Your task to perform on an android device: turn on sleep mode Image 0: 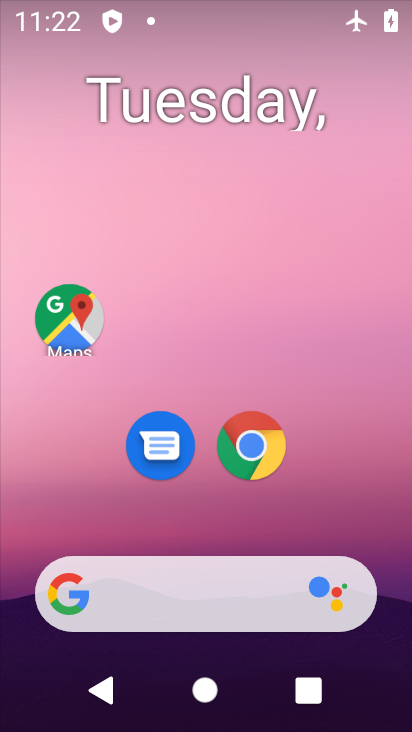
Step 0: drag from (374, 531) to (265, 30)
Your task to perform on an android device: turn on sleep mode Image 1: 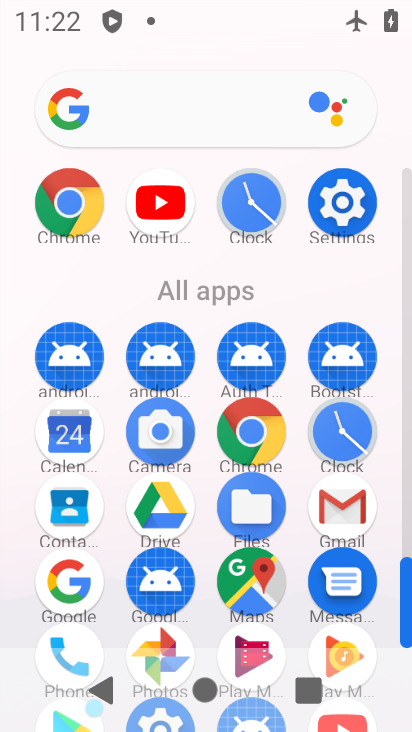
Step 1: drag from (3, 624) to (33, 250)
Your task to perform on an android device: turn on sleep mode Image 2: 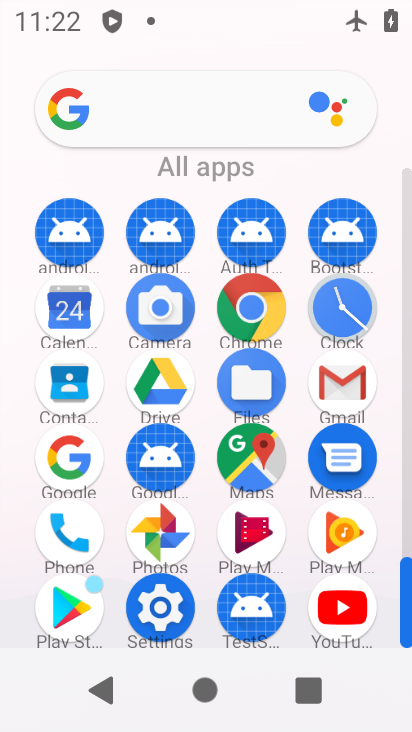
Step 2: click (158, 610)
Your task to perform on an android device: turn on sleep mode Image 3: 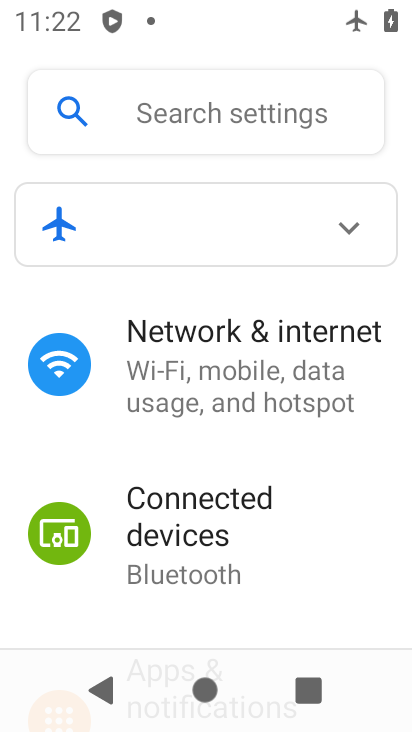
Step 3: drag from (298, 516) to (302, 131)
Your task to perform on an android device: turn on sleep mode Image 4: 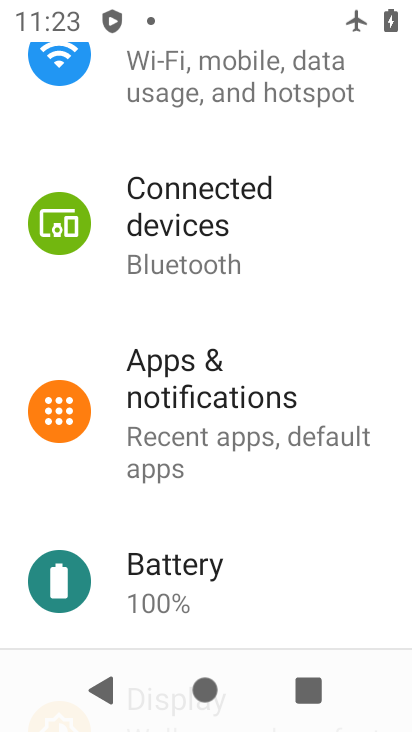
Step 4: drag from (278, 558) to (326, 182)
Your task to perform on an android device: turn on sleep mode Image 5: 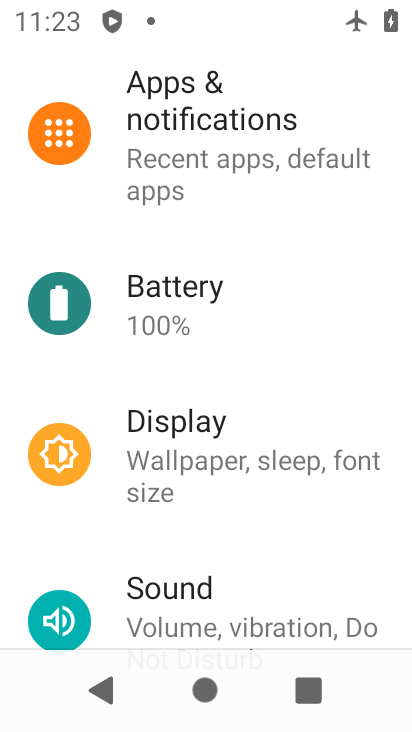
Step 5: click (183, 430)
Your task to perform on an android device: turn on sleep mode Image 6: 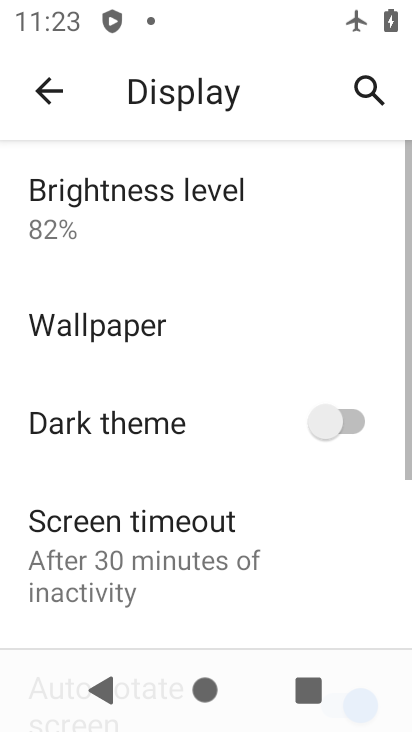
Step 6: drag from (203, 479) to (240, 163)
Your task to perform on an android device: turn on sleep mode Image 7: 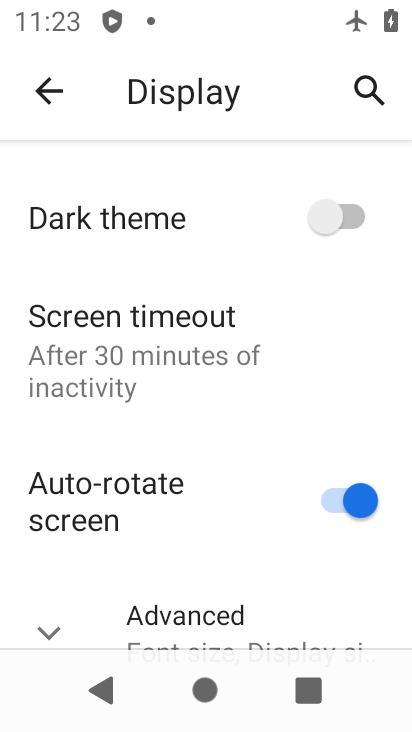
Step 7: drag from (179, 529) to (188, 168)
Your task to perform on an android device: turn on sleep mode Image 8: 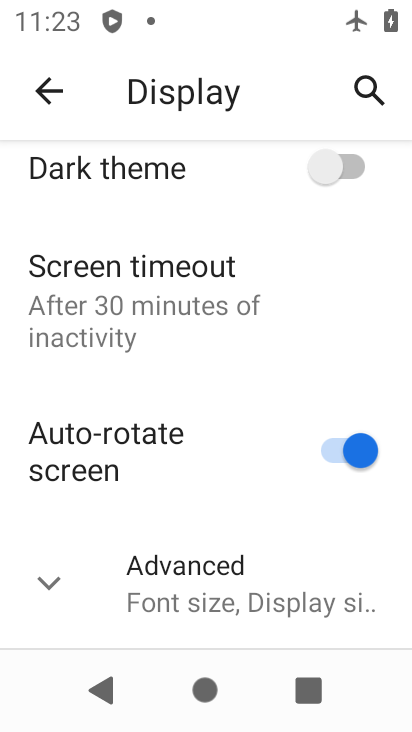
Step 8: click (41, 578)
Your task to perform on an android device: turn on sleep mode Image 9: 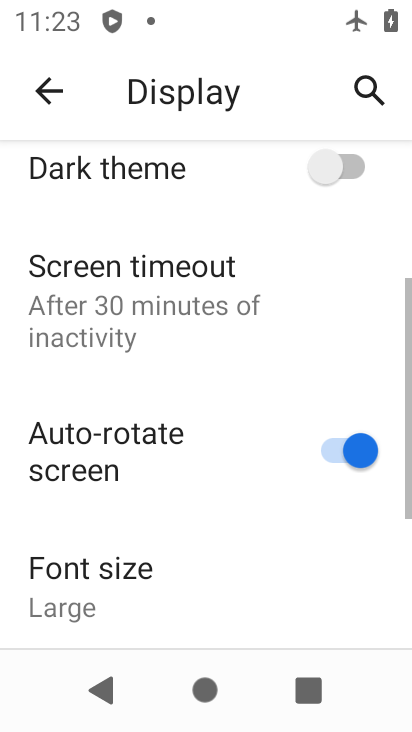
Step 9: task complete